Your task to perform on an android device: Do I have any events tomorrow? Image 0: 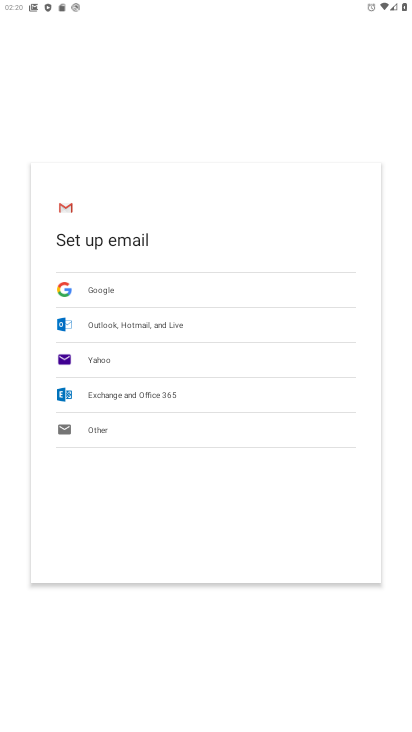
Step 0: press home button
Your task to perform on an android device: Do I have any events tomorrow? Image 1: 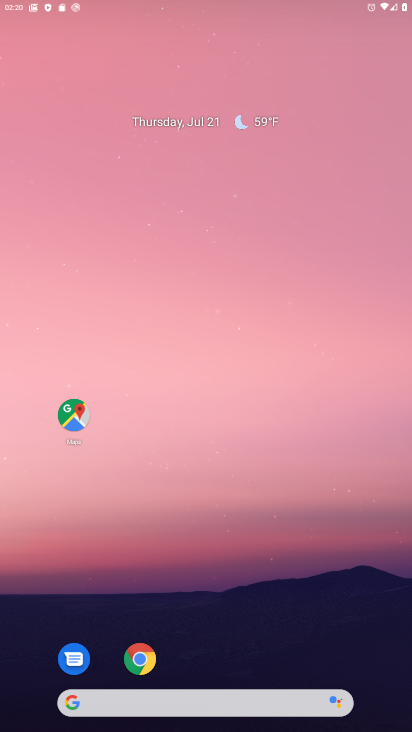
Step 1: drag from (350, 572) to (177, 154)
Your task to perform on an android device: Do I have any events tomorrow? Image 2: 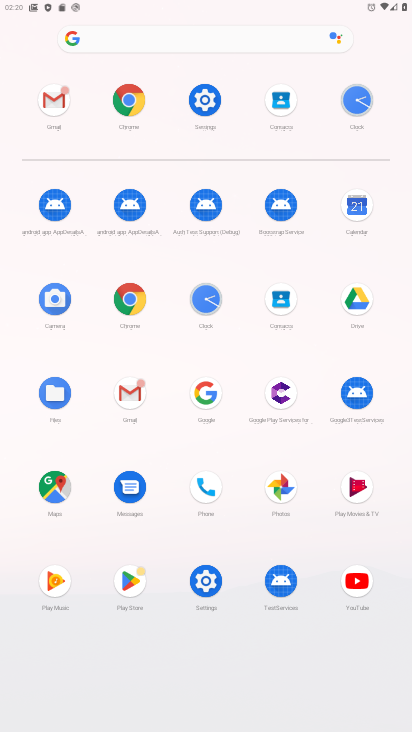
Step 2: click (357, 207)
Your task to perform on an android device: Do I have any events tomorrow? Image 3: 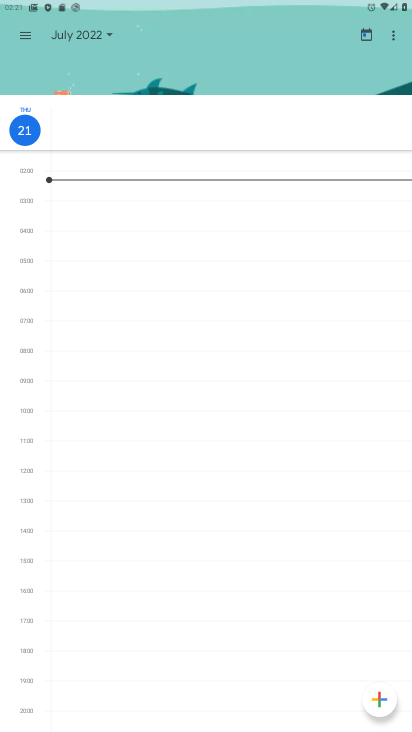
Step 3: click (102, 37)
Your task to perform on an android device: Do I have any events tomorrow? Image 4: 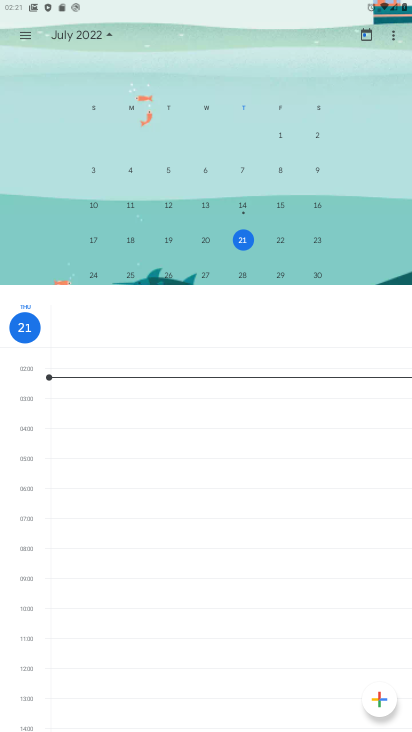
Step 4: click (283, 237)
Your task to perform on an android device: Do I have any events tomorrow? Image 5: 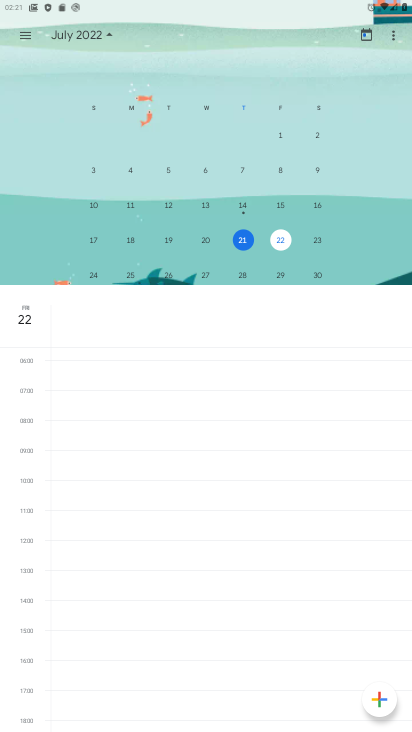
Step 5: task complete